Your task to perform on an android device: open app "Spotify: Music and Podcasts" Image 0: 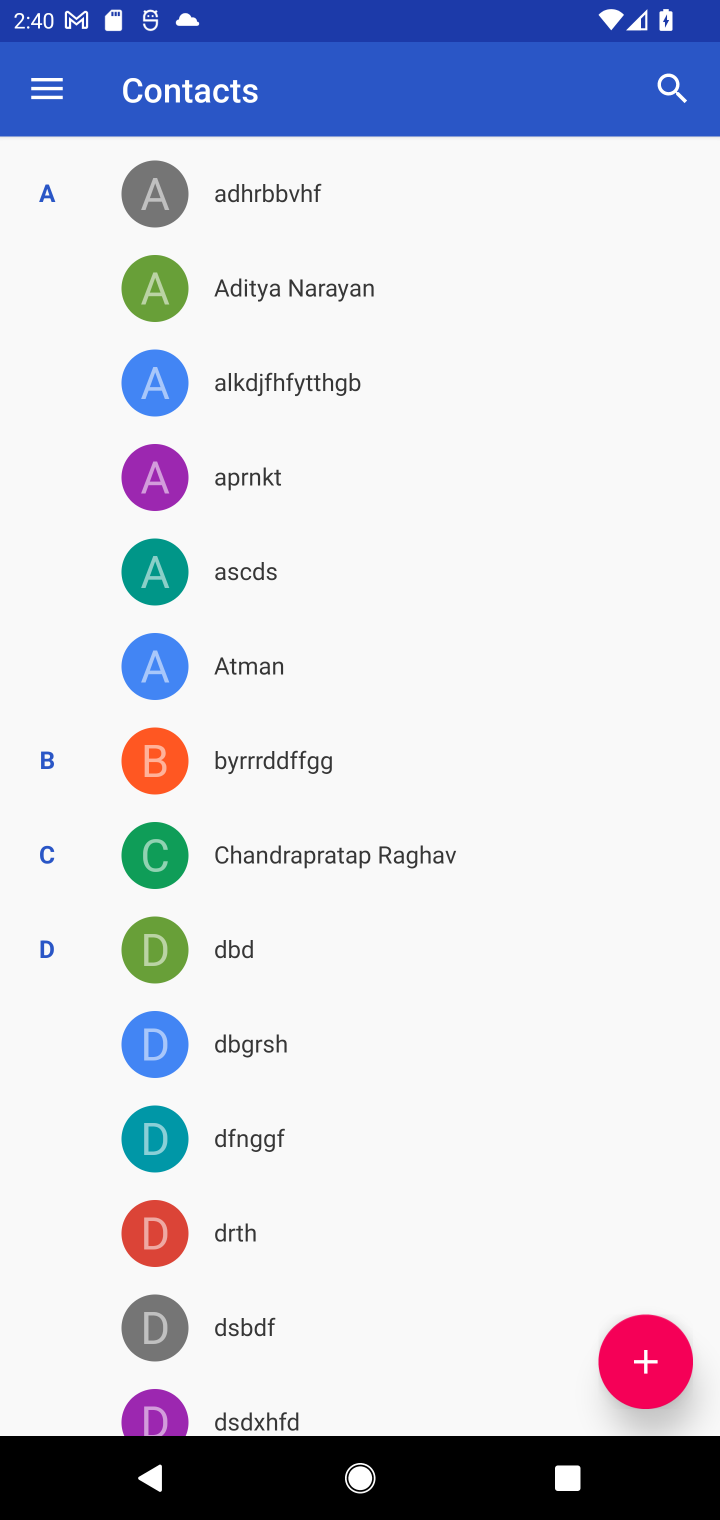
Step 0: press home button
Your task to perform on an android device: open app "Spotify: Music and Podcasts" Image 1: 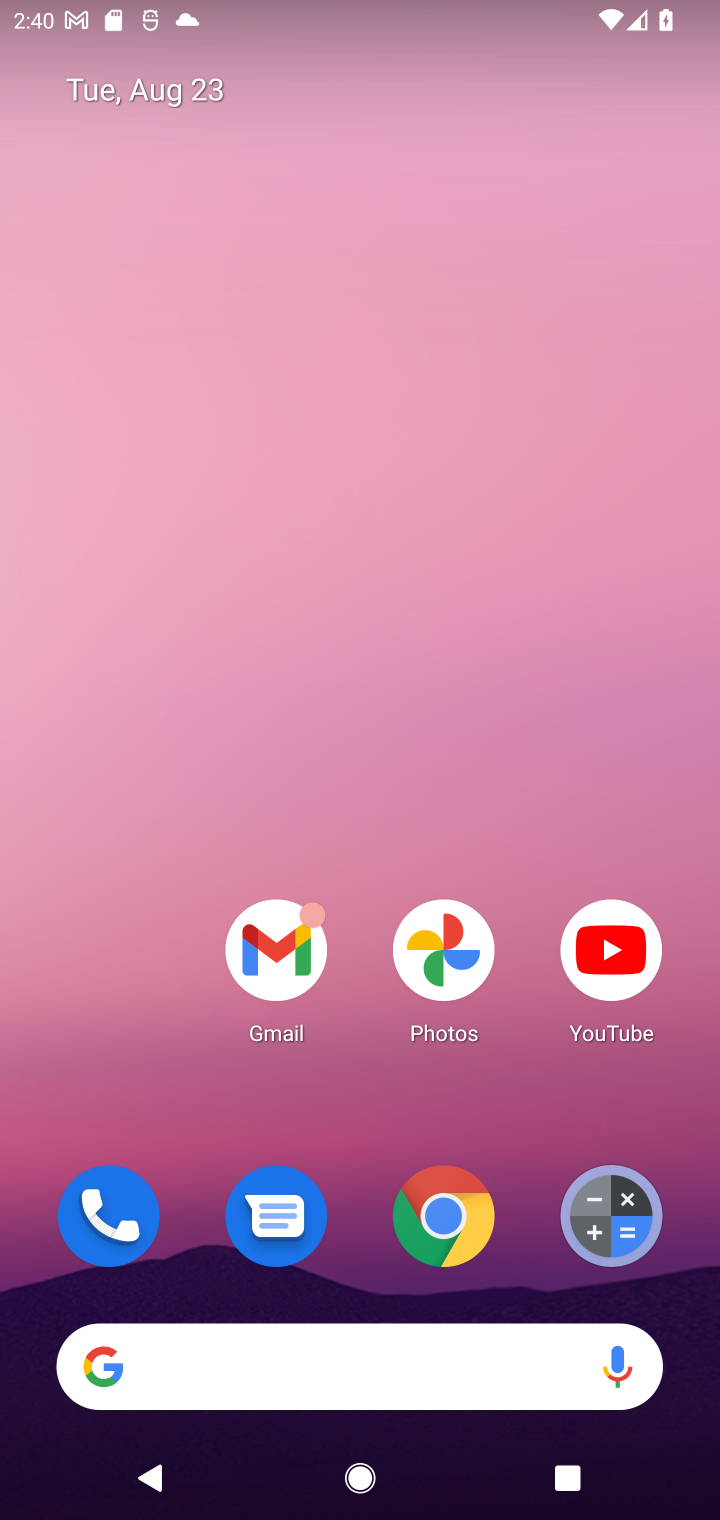
Step 1: drag from (343, 1185) to (393, 219)
Your task to perform on an android device: open app "Spotify: Music and Podcasts" Image 2: 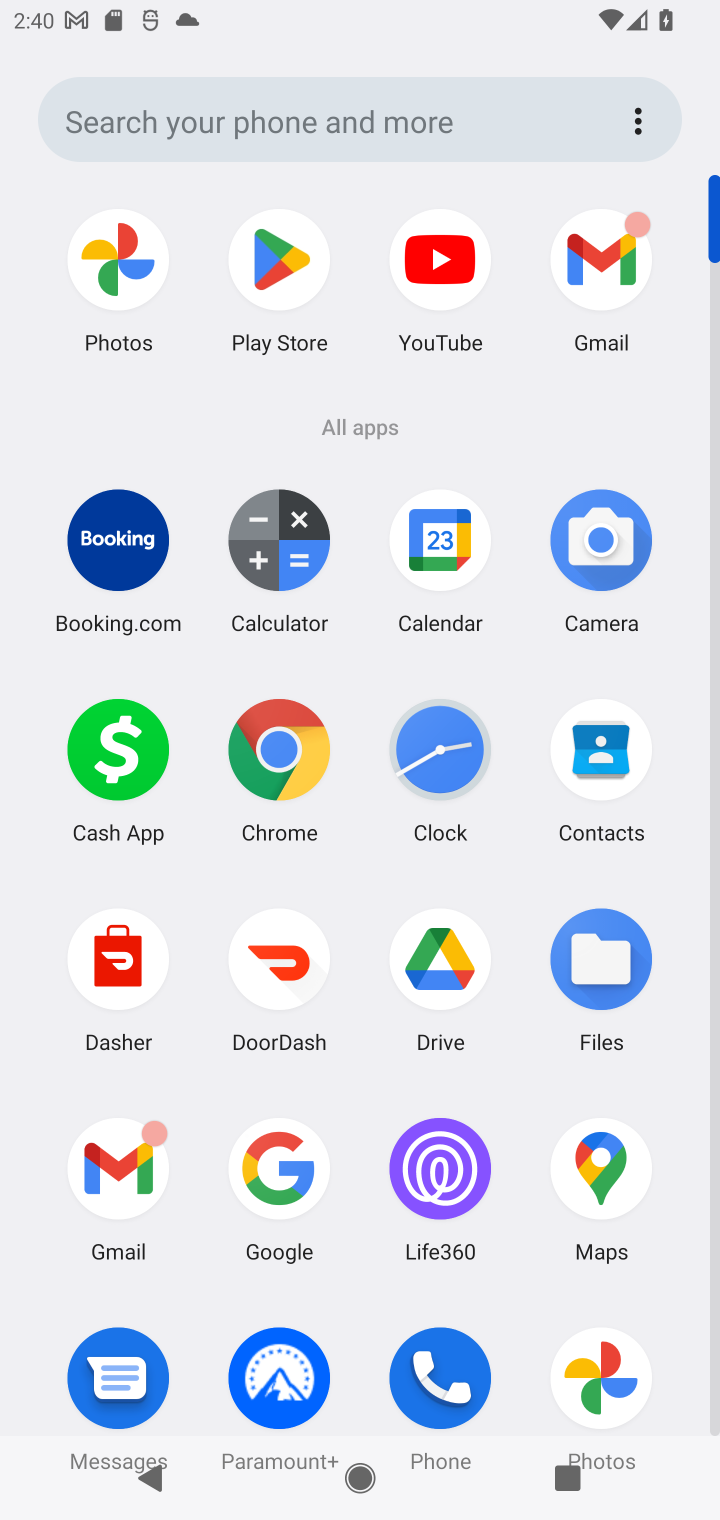
Step 2: click (286, 249)
Your task to perform on an android device: open app "Spotify: Music and Podcasts" Image 3: 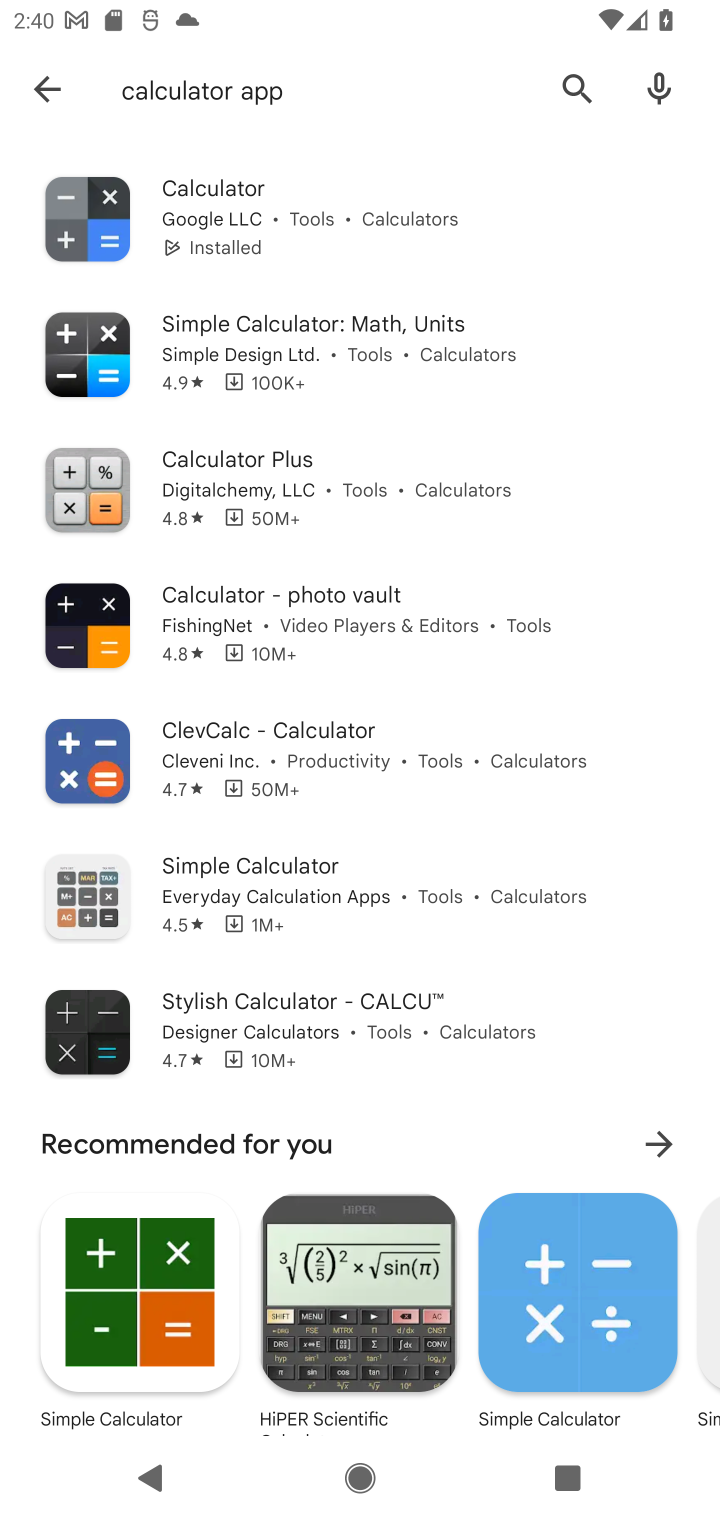
Step 3: click (63, 80)
Your task to perform on an android device: open app "Spotify: Music and Podcasts" Image 4: 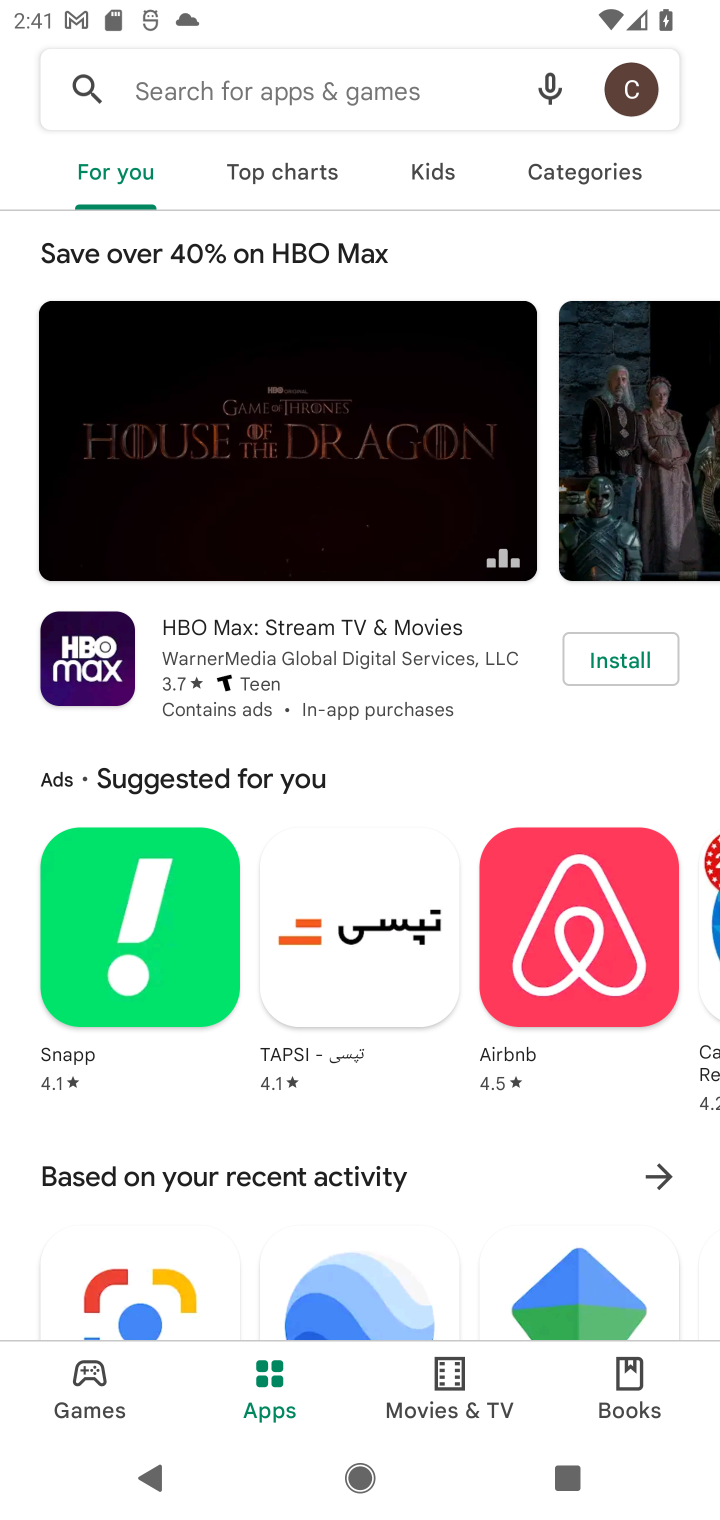
Step 4: click (175, 65)
Your task to perform on an android device: open app "Spotify: Music and Podcasts" Image 5: 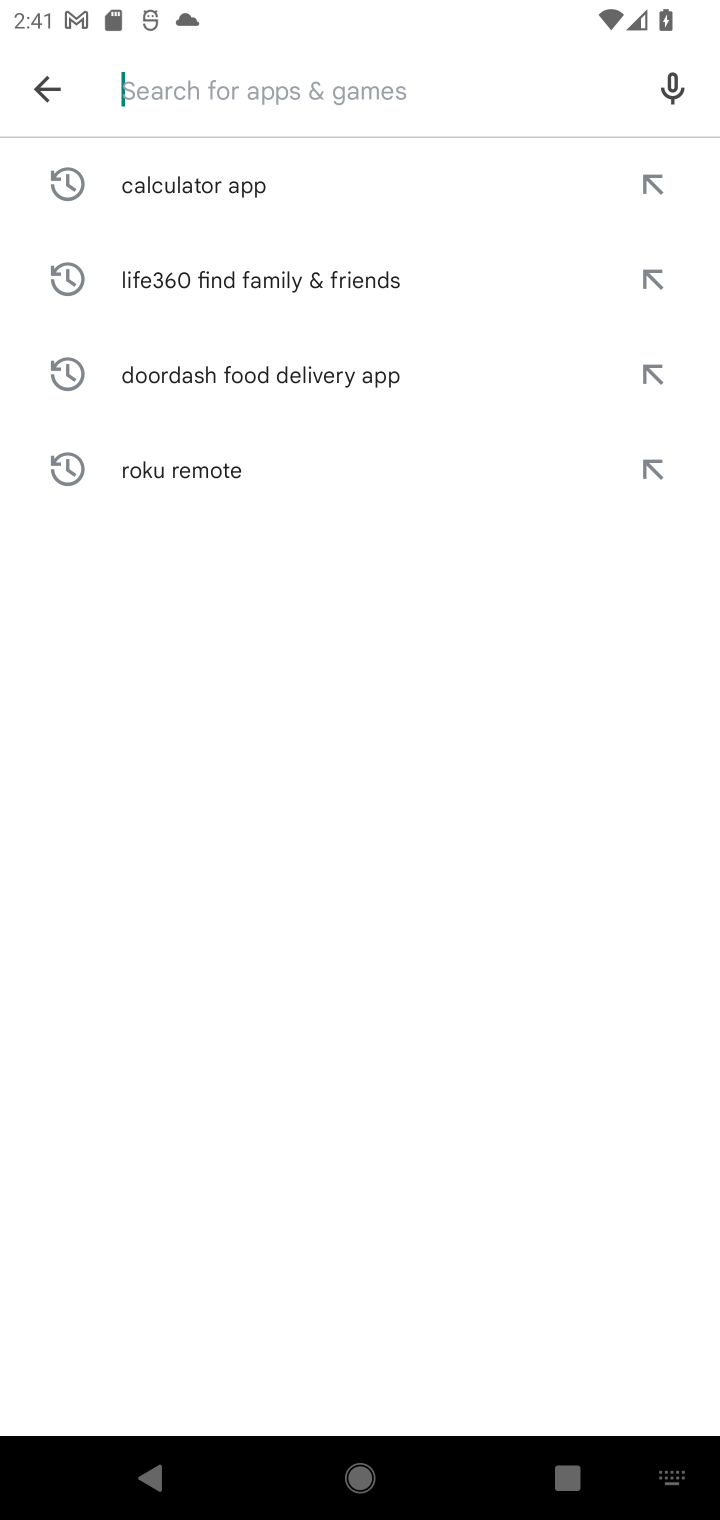
Step 5: click (297, 80)
Your task to perform on an android device: open app "Spotify: Music and Podcasts" Image 6: 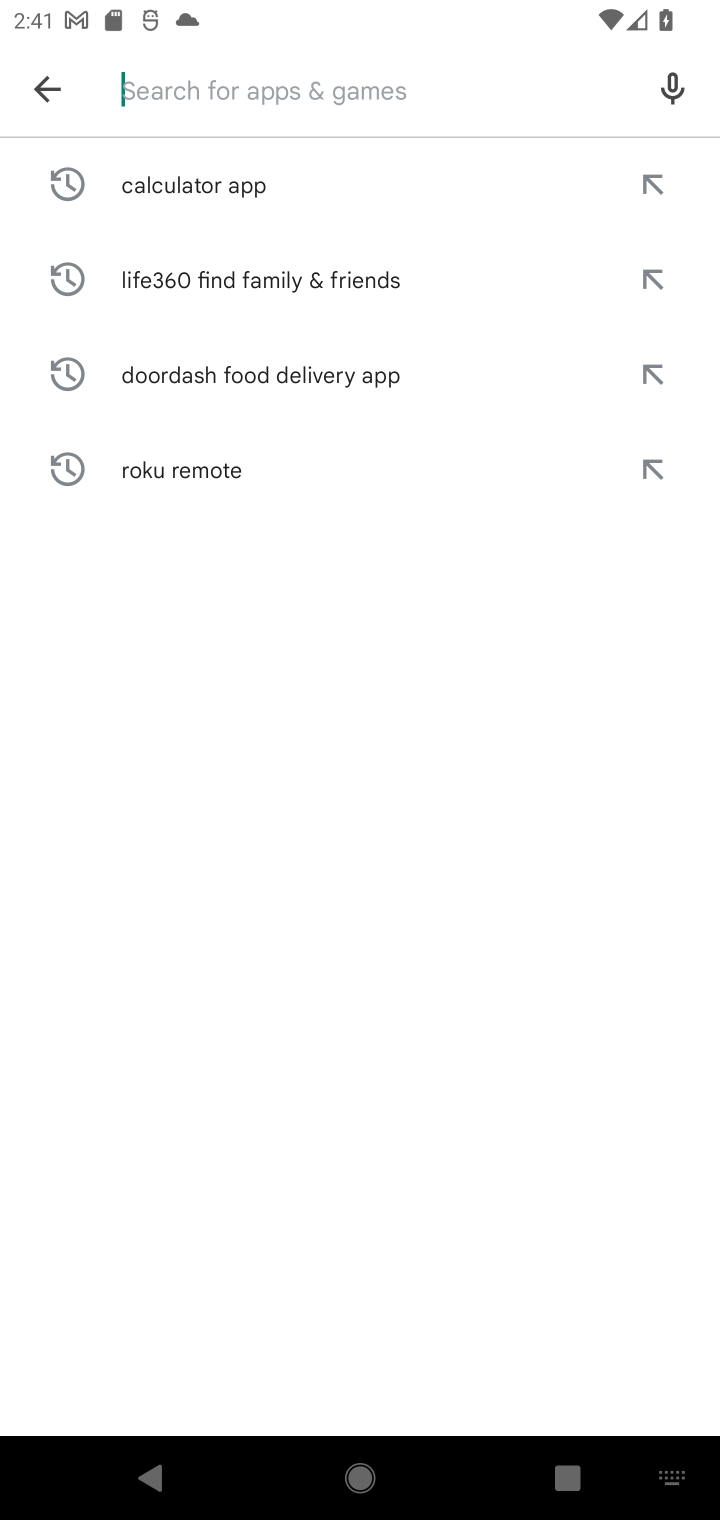
Step 6: type "Spotify "
Your task to perform on an android device: open app "Spotify: Music and Podcasts" Image 7: 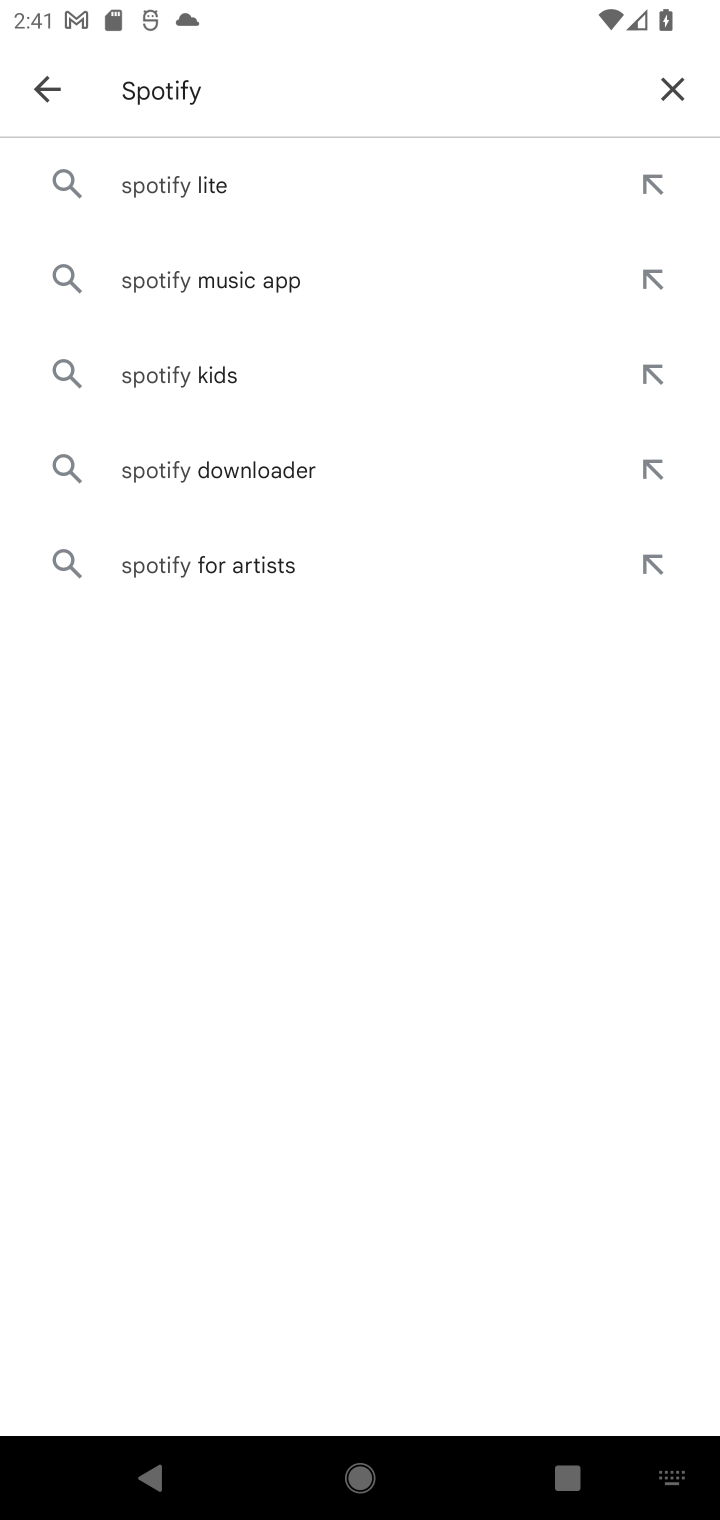
Step 7: click (162, 173)
Your task to perform on an android device: open app "Spotify: Music and Podcasts" Image 8: 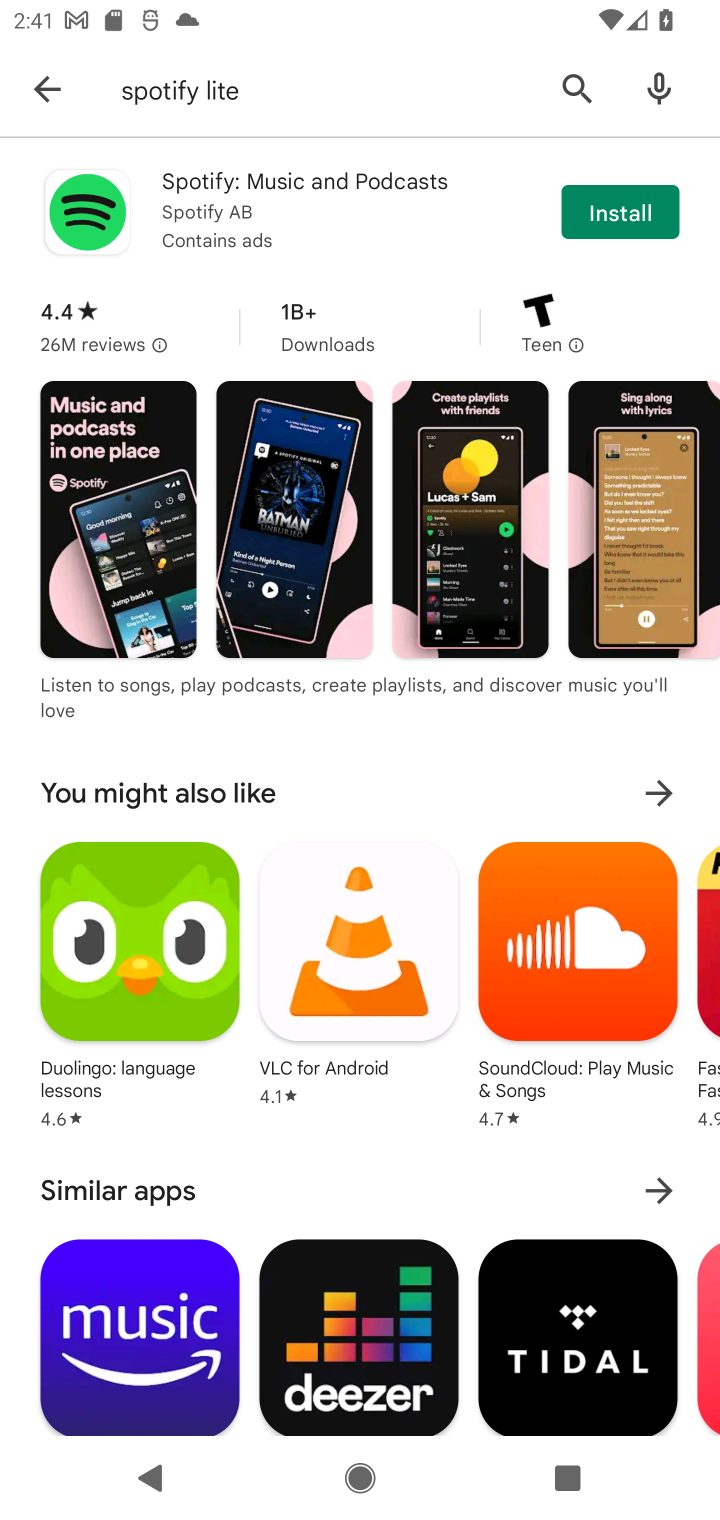
Step 8: click (643, 209)
Your task to perform on an android device: open app "Spotify: Music and Podcasts" Image 9: 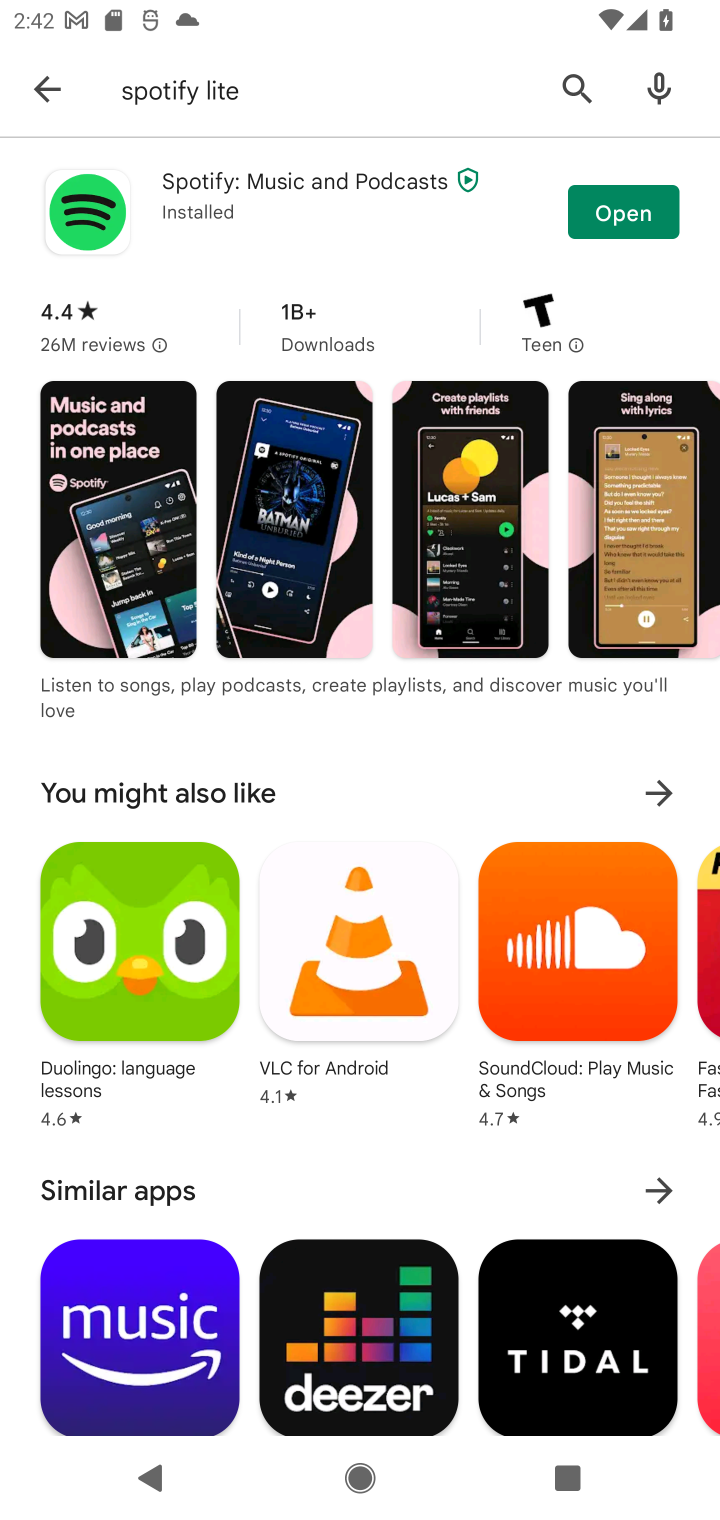
Step 9: task complete